Your task to perform on an android device: Open display settings Image 0: 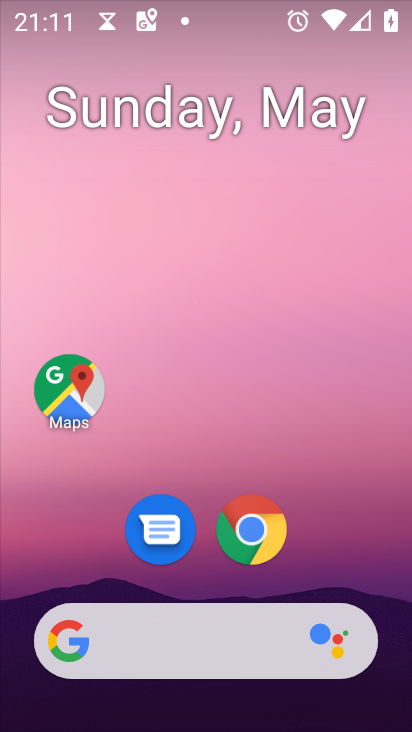
Step 0: drag from (366, 583) to (319, 6)
Your task to perform on an android device: Open display settings Image 1: 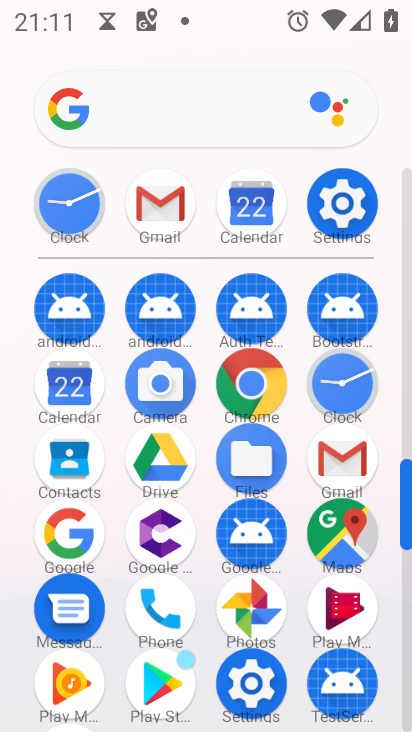
Step 1: click (345, 203)
Your task to perform on an android device: Open display settings Image 2: 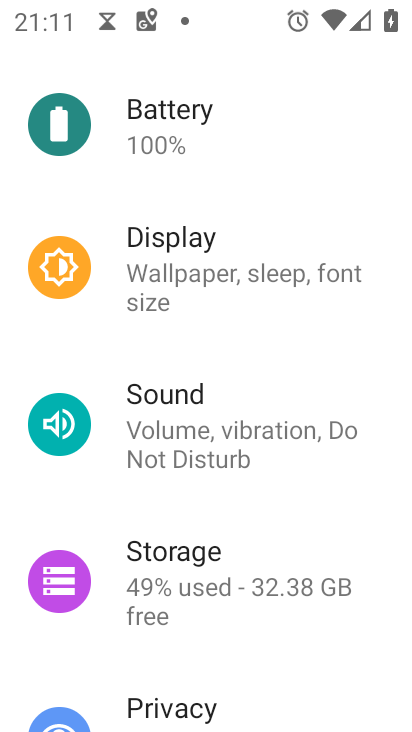
Step 2: click (153, 279)
Your task to perform on an android device: Open display settings Image 3: 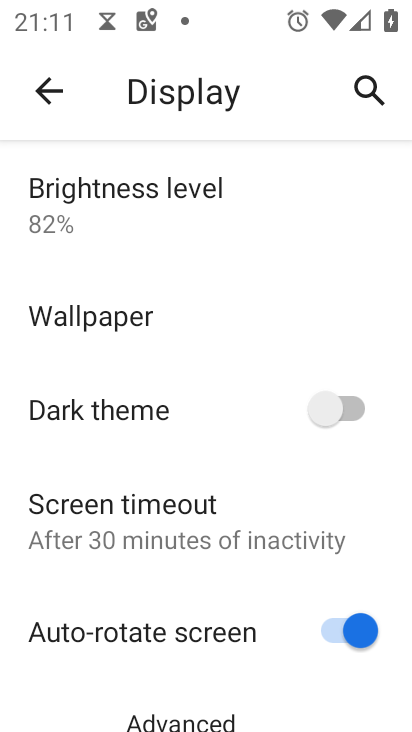
Step 3: task complete